Your task to perform on an android device: Go to notification settings Image 0: 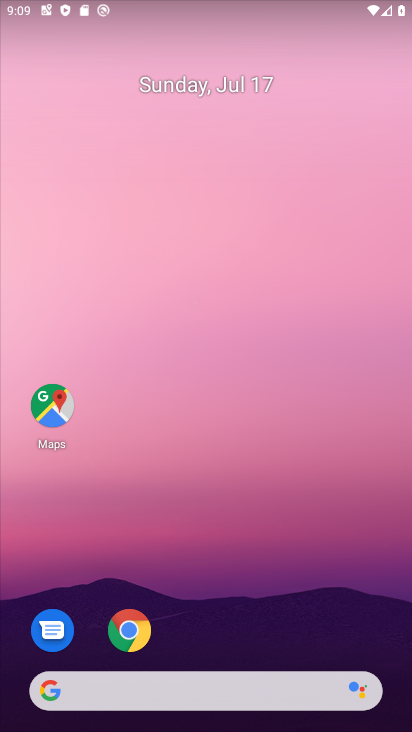
Step 0: drag from (173, 712) to (407, 81)
Your task to perform on an android device: Go to notification settings Image 1: 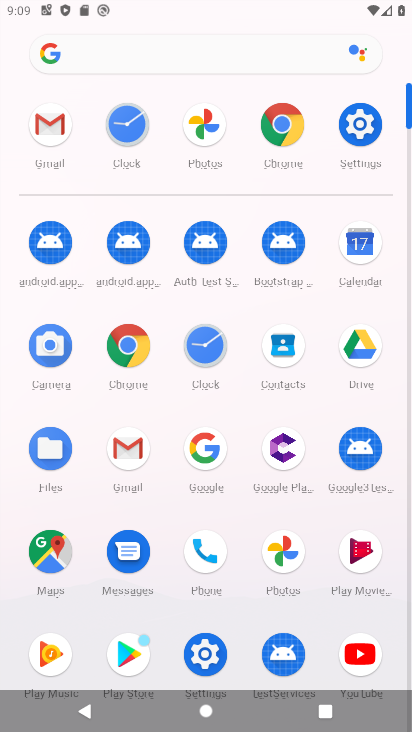
Step 1: click (360, 113)
Your task to perform on an android device: Go to notification settings Image 2: 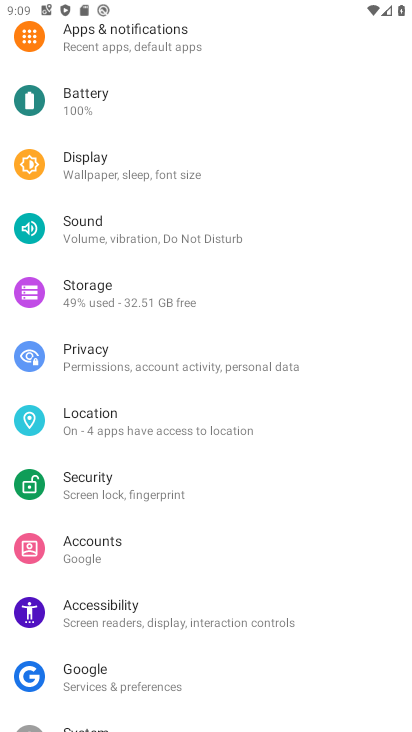
Step 2: click (158, 36)
Your task to perform on an android device: Go to notification settings Image 3: 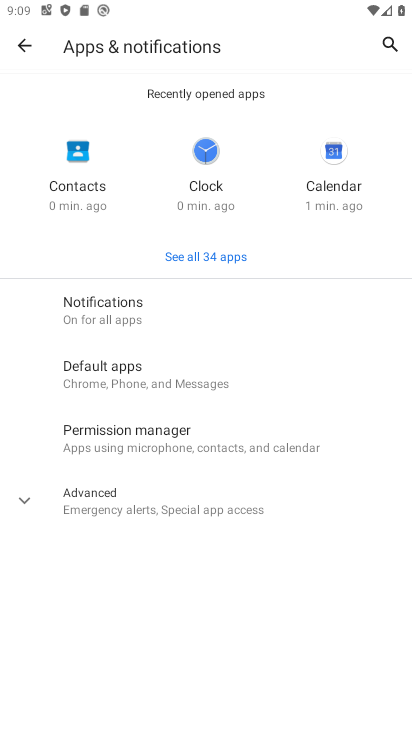
Step 3: task complete